Your task to perform on an android device: Go to ESPN.com Image 0: 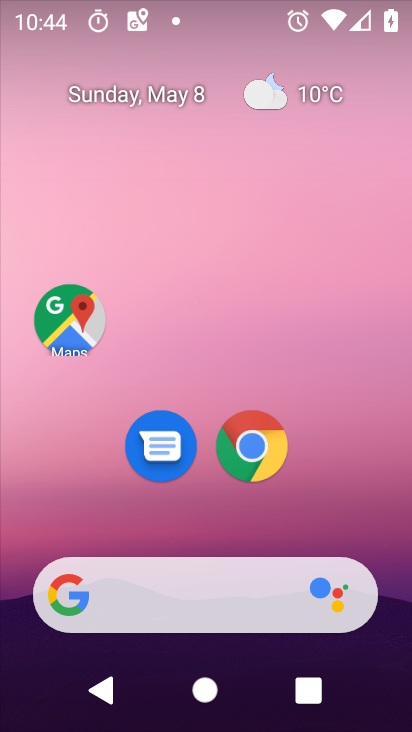
Step 0: click (250, 446)
Your task to perform on an android device: Go to ESPN.com Image 1: 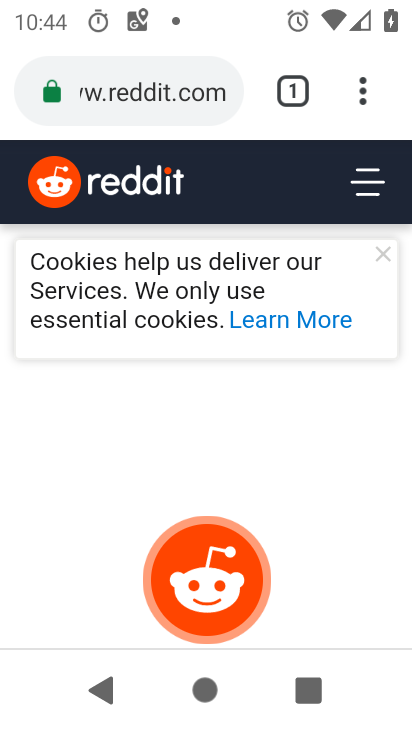
Step 1: click (148, 89)
Your task to perform on an android device: Go to ESPN.com Image 2: 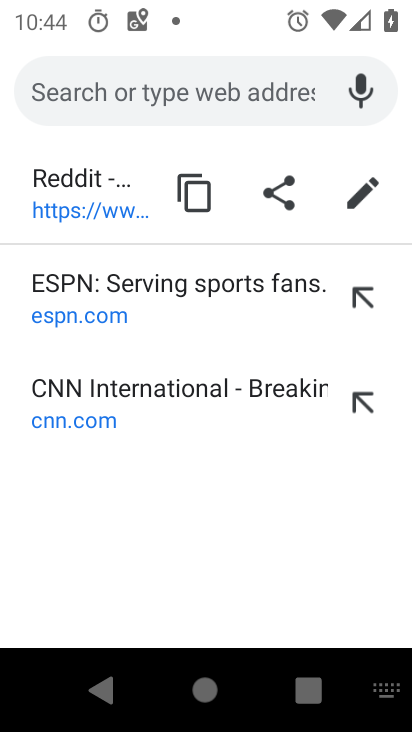
Step 2: click (81, 320)
Your task to perform on an android device: Go to ESPN.com Image 3: 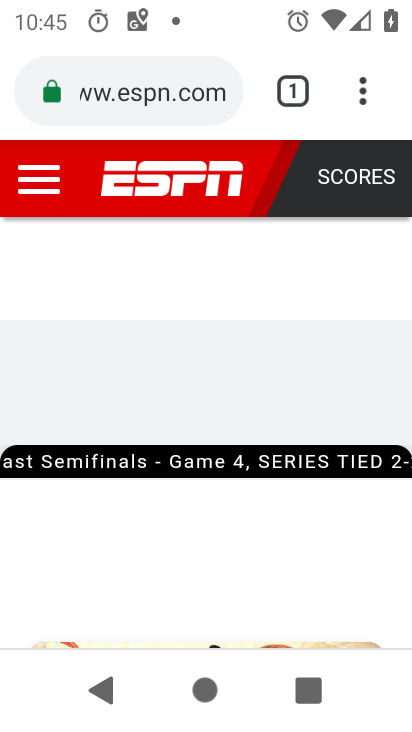
Step 3: task complete